Your task to perform on an android device: turn on sleep mode Image 0: 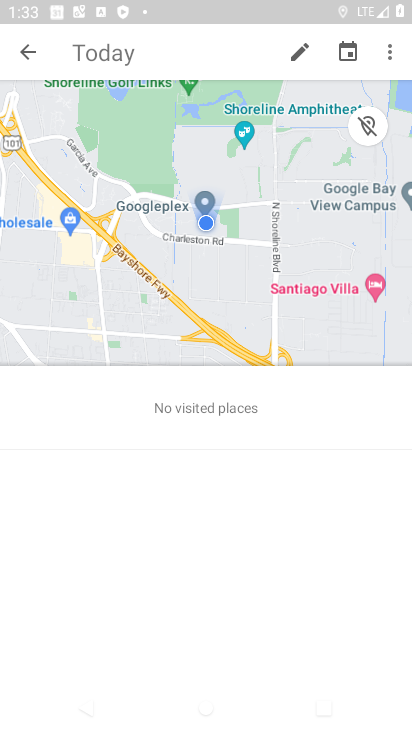
Step 0: press home button
Your task to perform on an android device: turn on sleep mode Image 1: 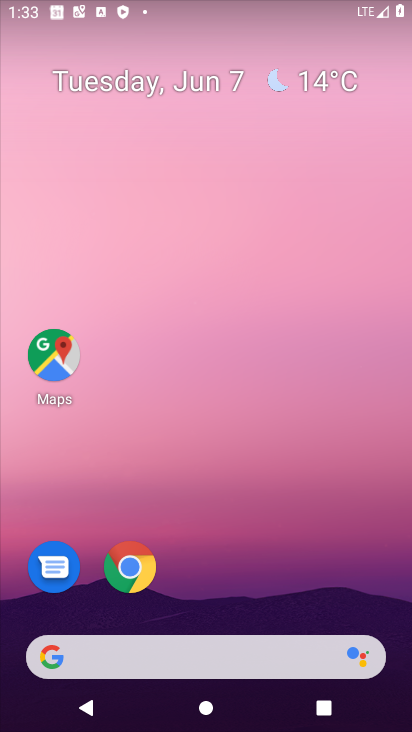
Step 1: drag from (308, 635) to (326, 36)
Your task to perform on an android device: turn on sleep mode Image 2: 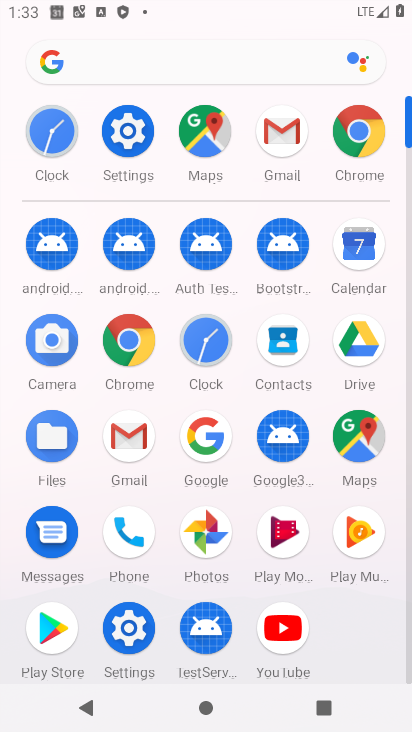
Step 2: click (116, 126)
Your task to perform on an android device: turn on sleep mode Image 3: 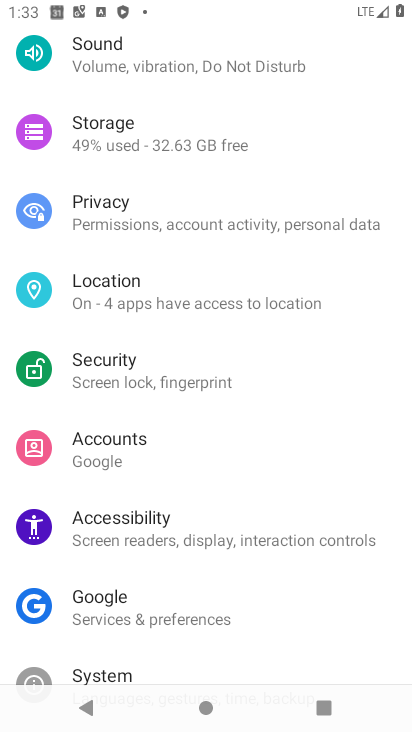
Step 3: drag from (238, 207) to (296, 722)
Your task to perform on an android device: turn on sleep mode Image 4: 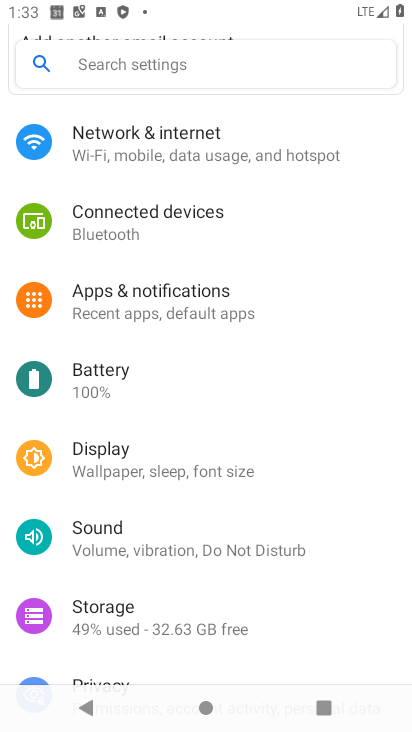
Step 4: click (207, 457)
Your task to perform on an android device: turn on sleep mode Image 5: 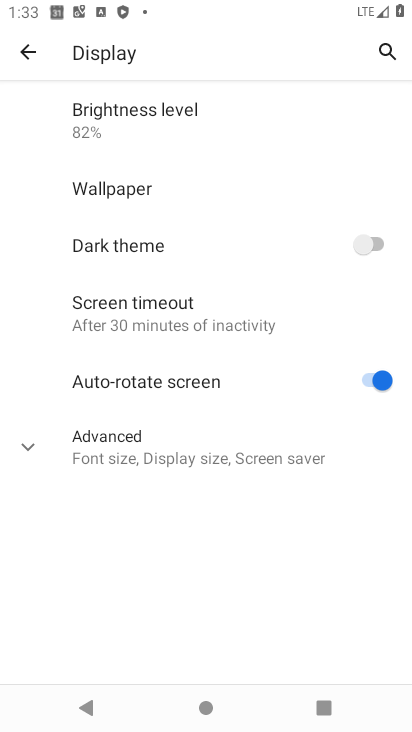
Step 5: task complete